Your task to perform on an android device: open a bookmark in the chrome app Image 0: 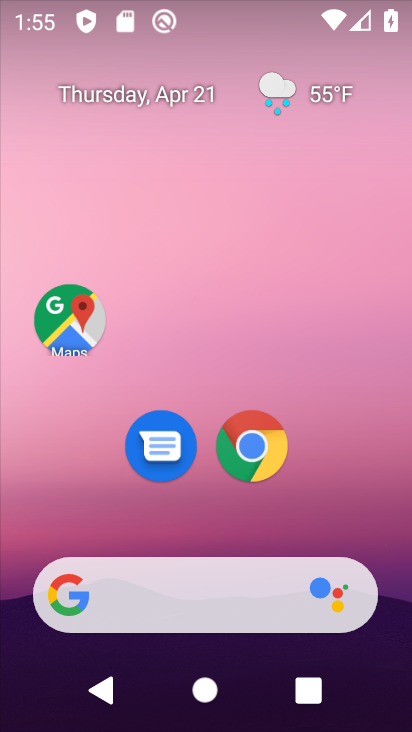
Step 0: click (262, 447)
Your task to perform on an android device: open a bookmark in the chrome app Image 1: 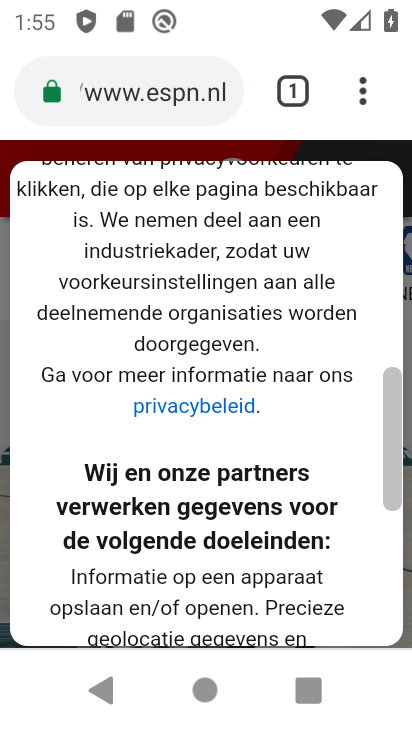
Step 1: task complete